Your task to perform on an android device: Open calendar and show me the fourth week of next month Image 0: 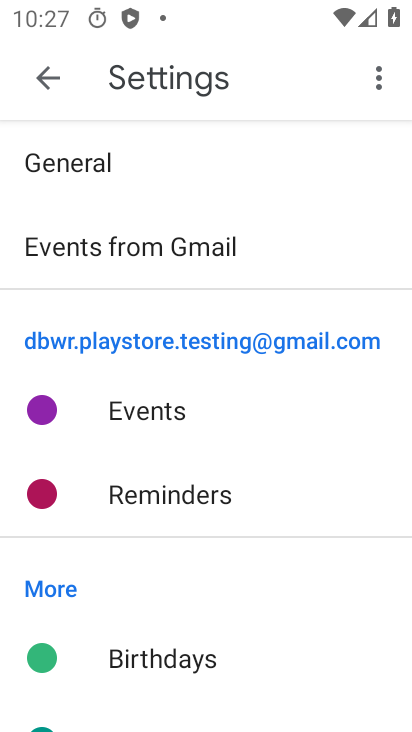
Step 0: press home button
Your task to perform on an android device: Open calendar and show me the fourth week of next month Image 1: 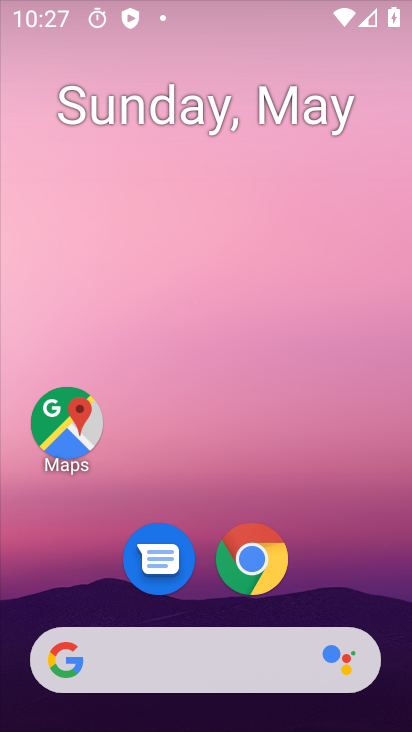
Step 1: drag from (330, 548) to (277, 92)
Your task to perform on an android device: Open calendar and show me the fourth week of next month Image 2: 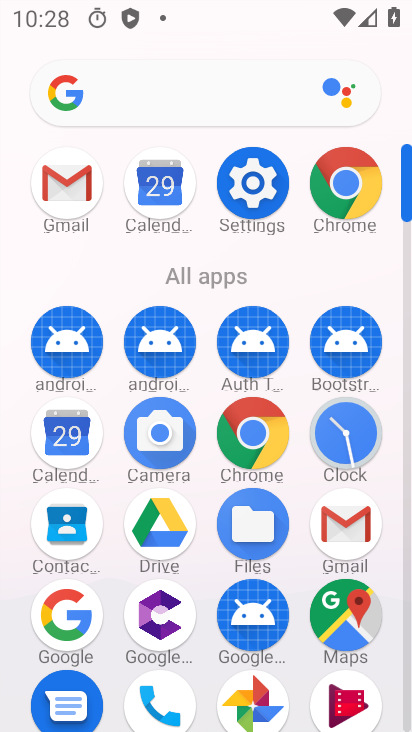
Step 2: click (76, 458)
Your task to perform on an android device: Open calendar and show me the fourth week of next month Image 3: 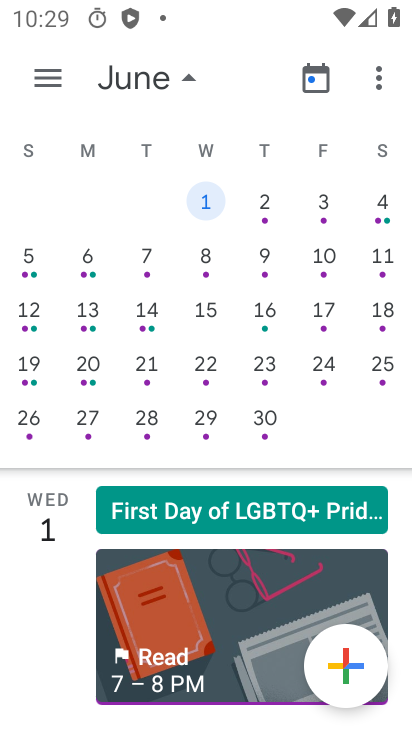
Step 3: click (37, 357)
Your task to perform on an android device: Open calendar and show me the fourth week of next month Image 4: 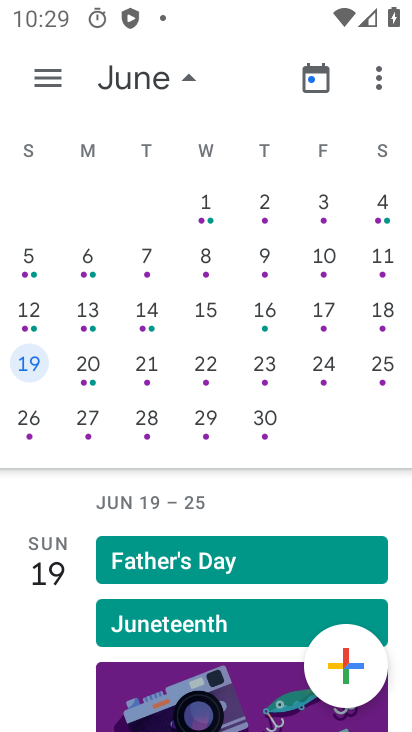
Step 4: task complete